Your task to perform on an android device: Open Android settings Image 0: 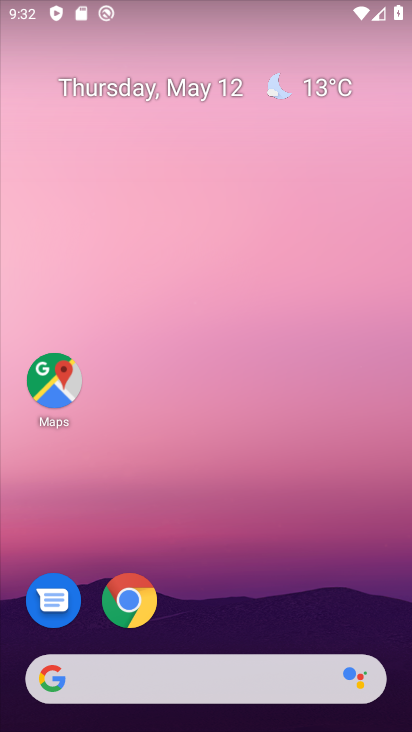
Step 0: drag from (234, 590) to (312, 49)
Your task to perform on an android device: Open Android settings Image 1: 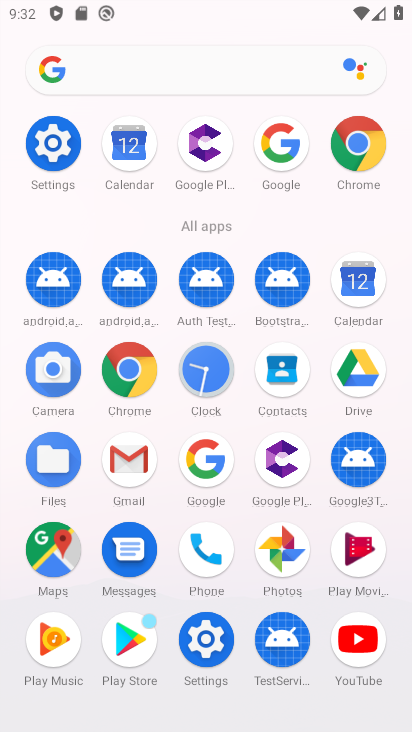
Step 1: click (39, 140)
Your task to perform on an android device: Open Android settings Image 2: 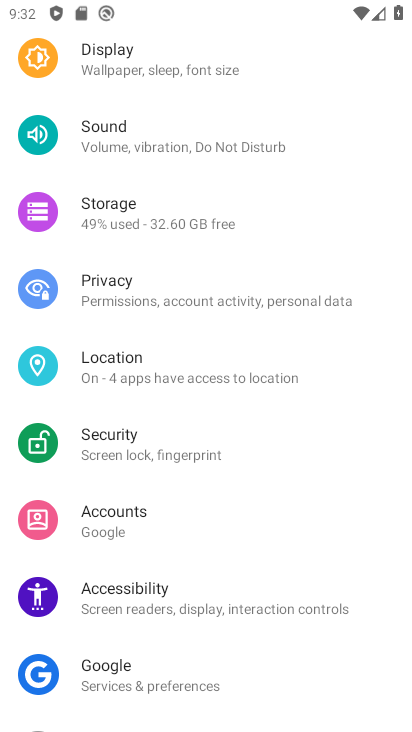
Step 2: drag from (182, 658) to (320, 47)
Your task to perform on an android device: Open Android settings Image 3: 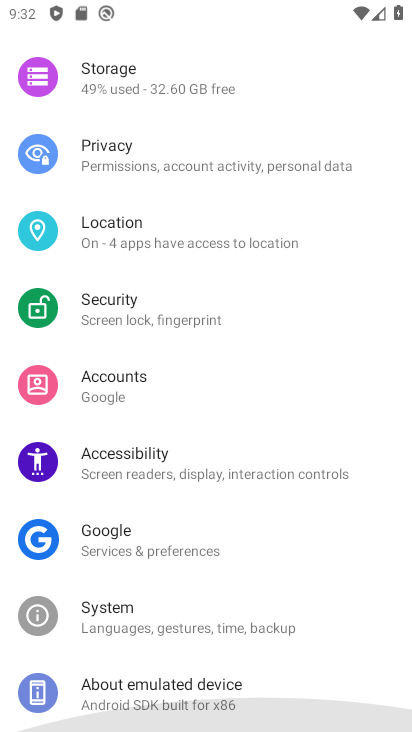
Step 3: drag from (156, 624) to (277, 67)
Your task to perform on an android device: Open Android settings Image 4: 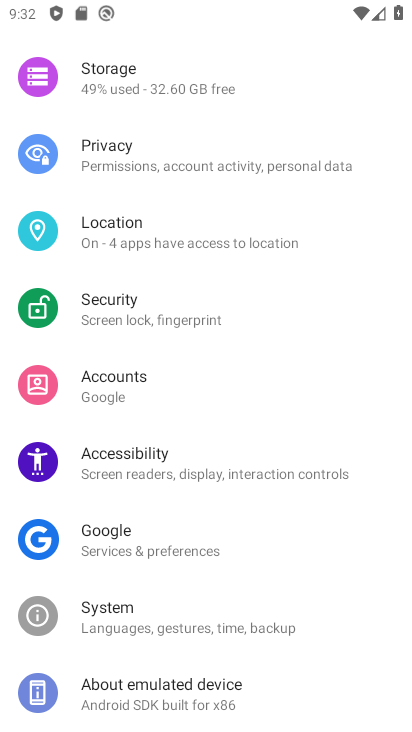
Step 4: click (151, 699)
Your task to perform on an android device: Open Android settings Image 5: 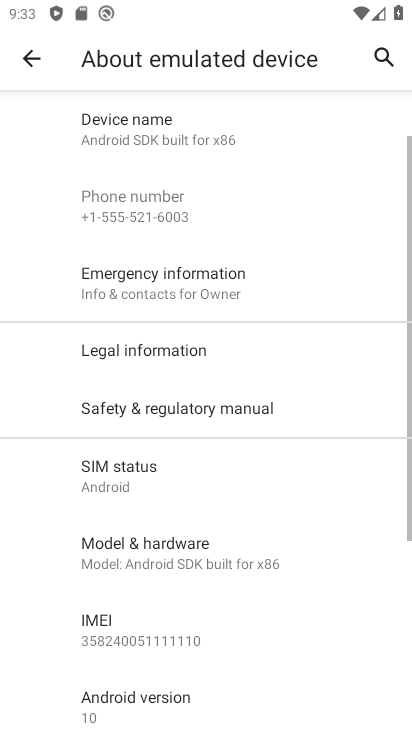
Step 5: click (129, 706)
Your task to perform on an android device: Open Android settings Image 6: 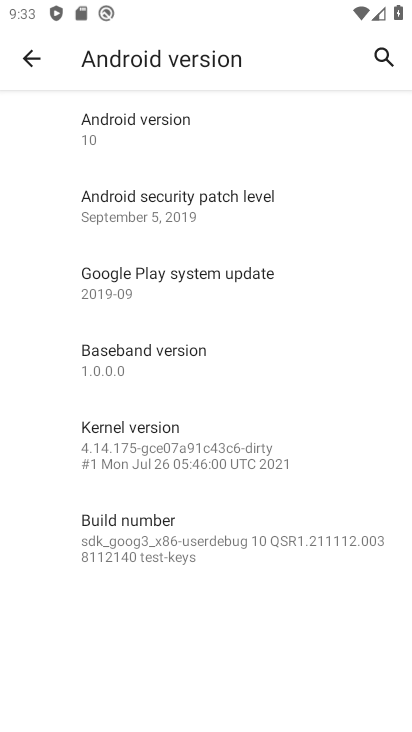
Step 6: click (161, 140)
Your task to perform on an android device: Open Android settings Image 7: 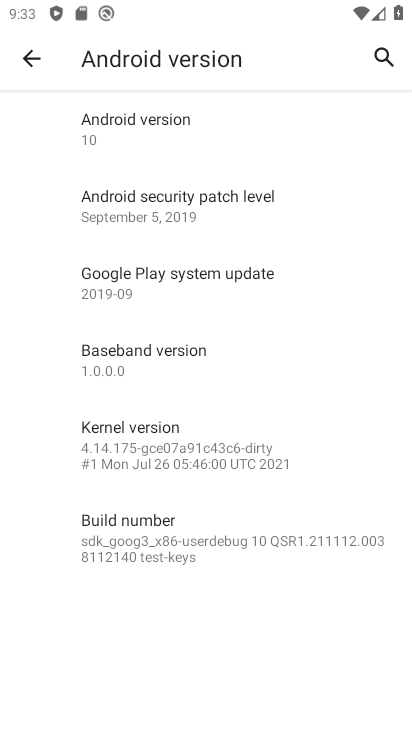
Step 7: task complete